Your task to perform on an android device: remove spam from my inbox in the gmail app Image 0: 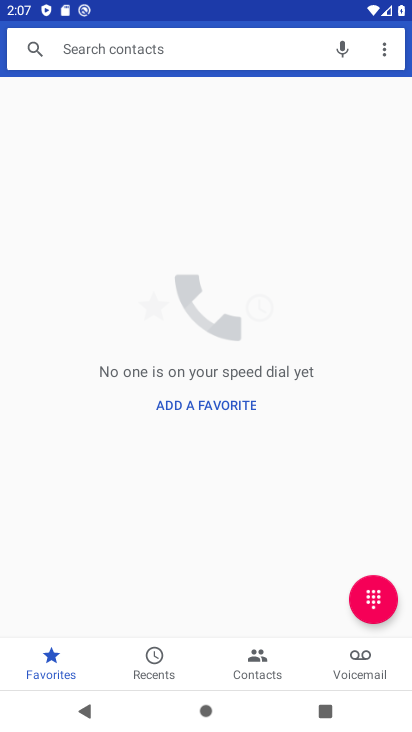
Step 0: press home button
Your task to perform on an android device: remove spam from my inbox in the gmail app Image 1: 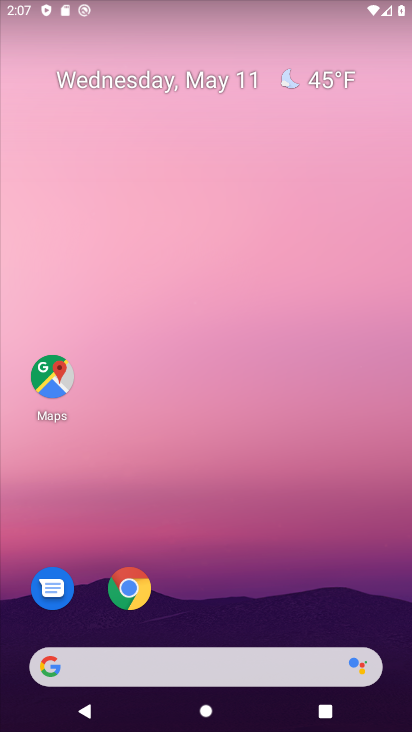
Step 1: drag from (205, 616) to (199, 185)
Your task to perform on an android device: remove spam from my inbox in the gmail app Image 2: 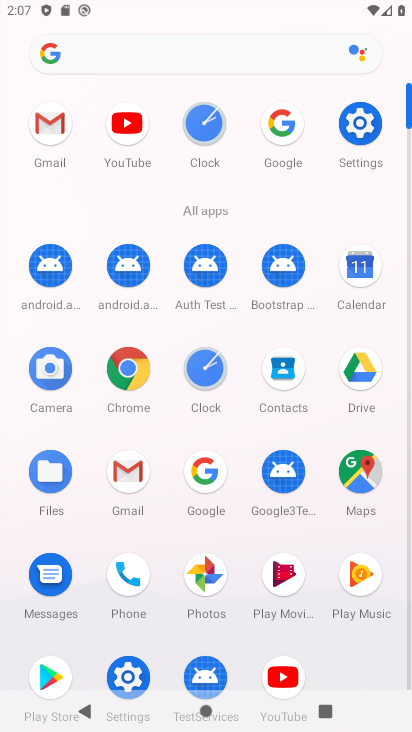
Step 2: click (110, 468)
Your task to perform on an android device: remove spam from my inbox in the gmail app Image 3: 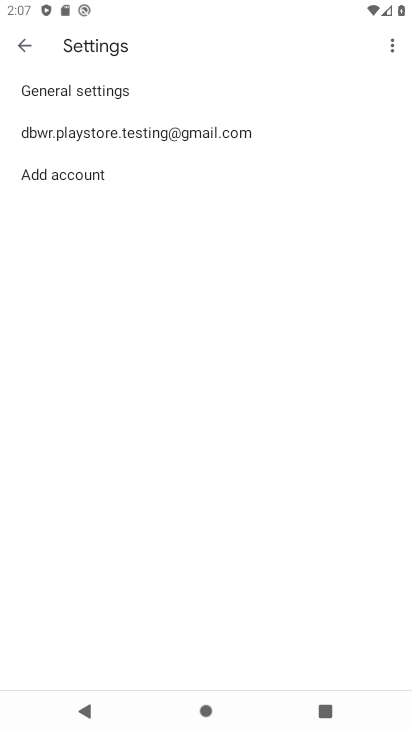
Step 3: click (21, 38)
Your task to perform on an android device: remove spam from my inbox in the gmail app Image 4: 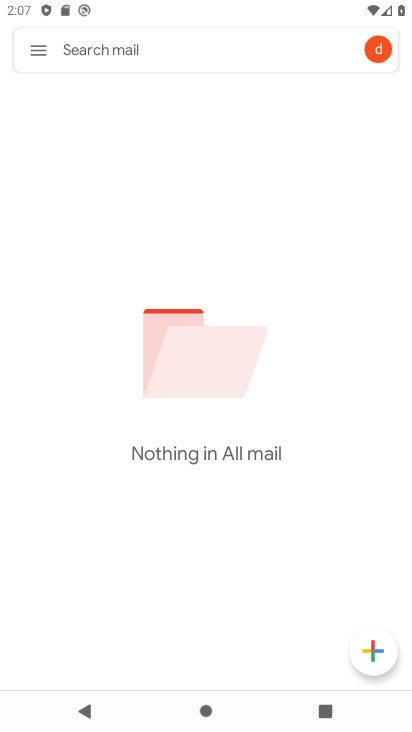
Step 4: click (29, 44)
Your task to perform on an android device: remove spam from my inbox in the gmail app Image 5: 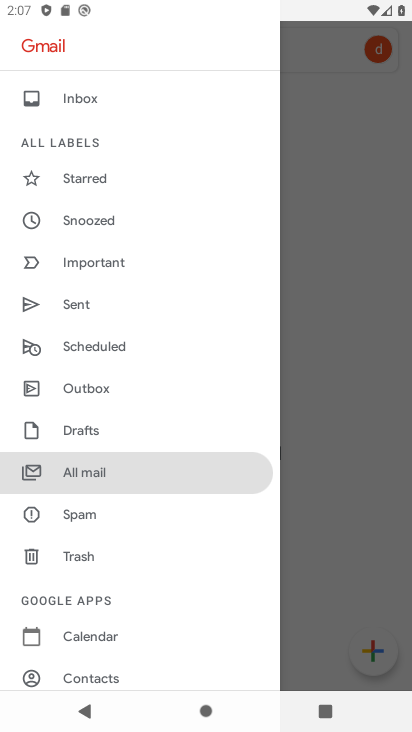
Step 5: click (100, 510)
Your task to perform on an android device: remove spam from my inbox in the gmail app Image 6: 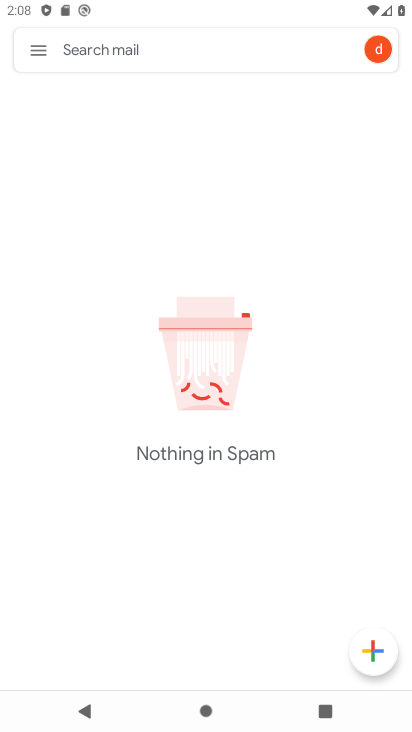
Step 6: task complete